Your task to perform on an android device: Open ESPN.com Image 0: 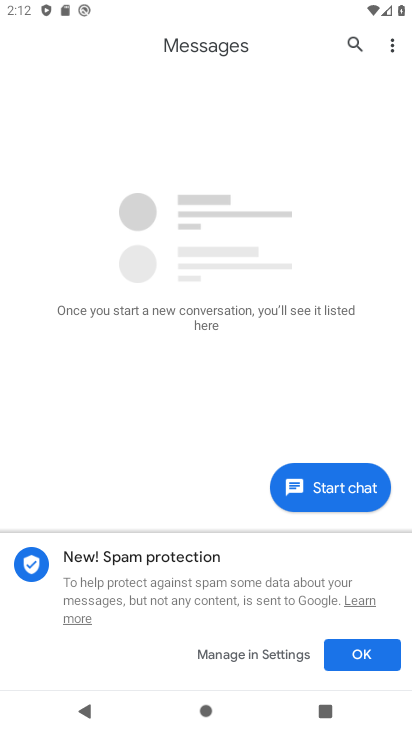
Step 0: drag from (230, 533) to (176, 76)
Your task to perform on an android device: Open ESPN.com Image 1: 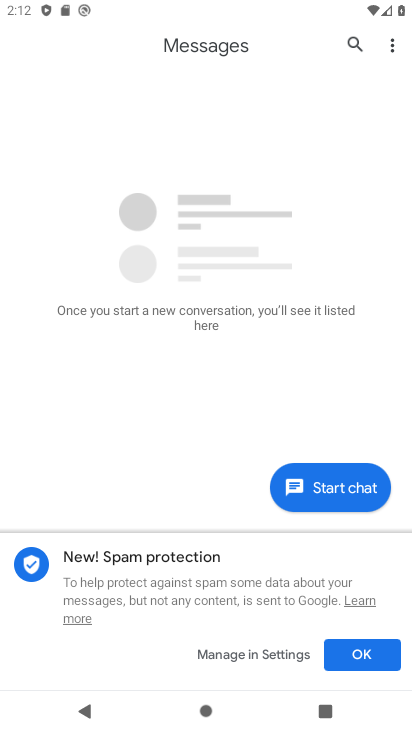
Step 1: press back button
Your task to perform on an android device: Open ESPN.com Image 2: 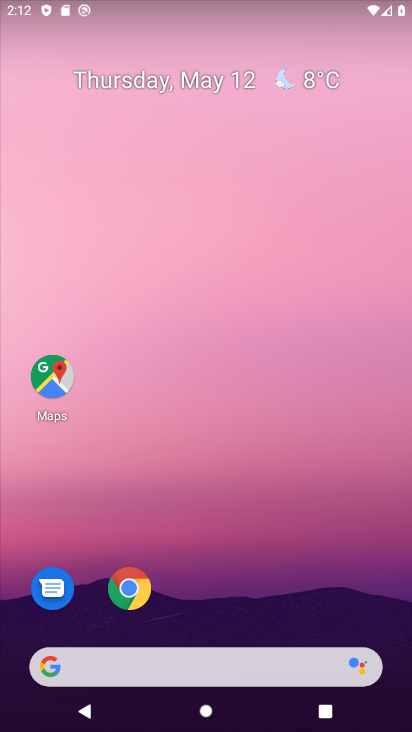
Step 2: drag from (252, 527) to (194, 51)
Your task to perform on an android device: Open ESPN.com Image 3: 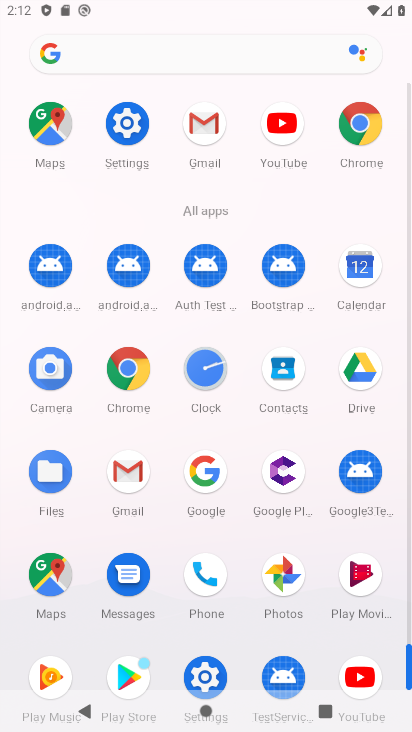
Step 3: click (125, 364)
Your task to perform on an android device: Open ESPN.com Image 4: 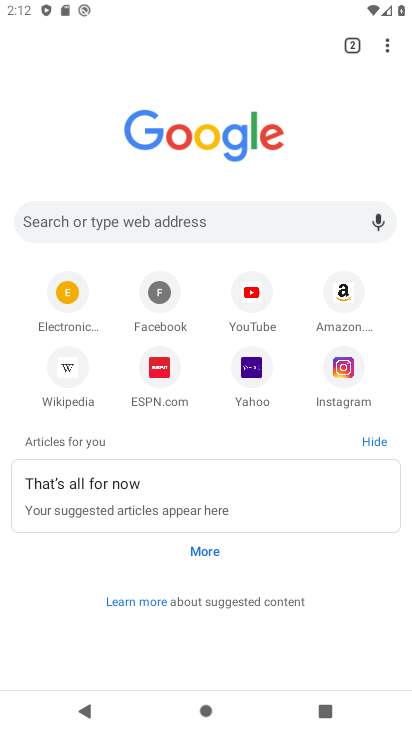
Step 4: click (152, 222)
Your task to perform on an android device: Open ESPN.com Image 5: 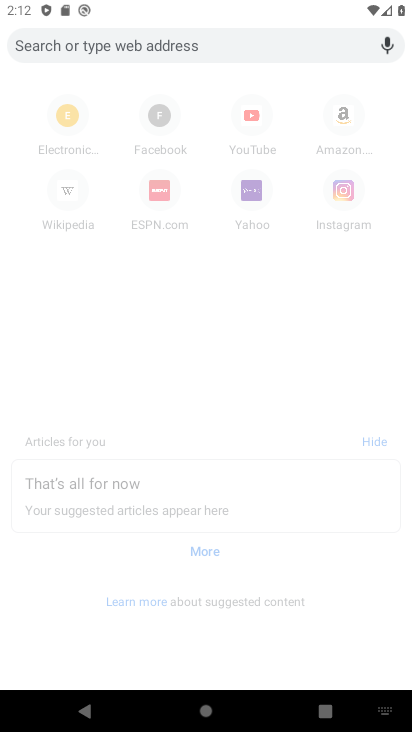
Step 5: click (148, 184)
Your task to perform on an android device: Open ESPN.com Image 6: 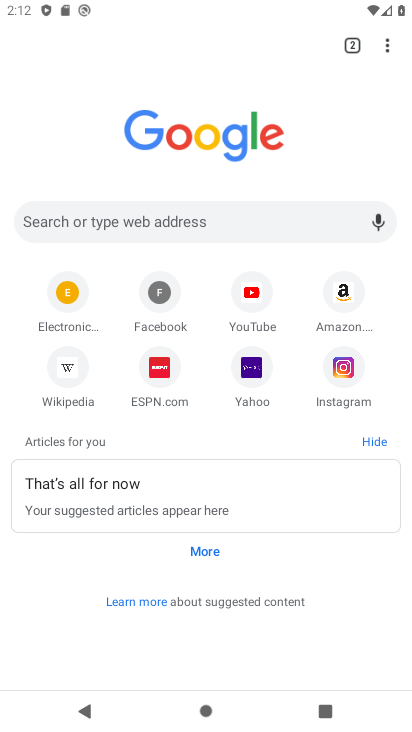
Step 6: click (166, 366)
Your task to perform on an android device: Open ESPN.com Image 7: 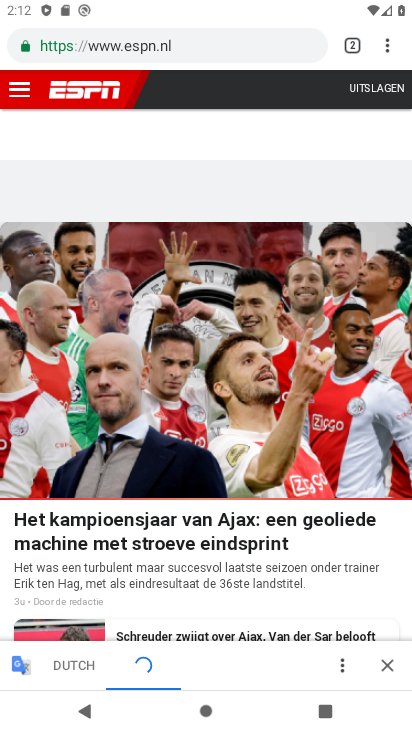
Step 7: drag from (184, 505) to (210, 178)
Your task to perform on an android device: Open ESPN.com Image 8: 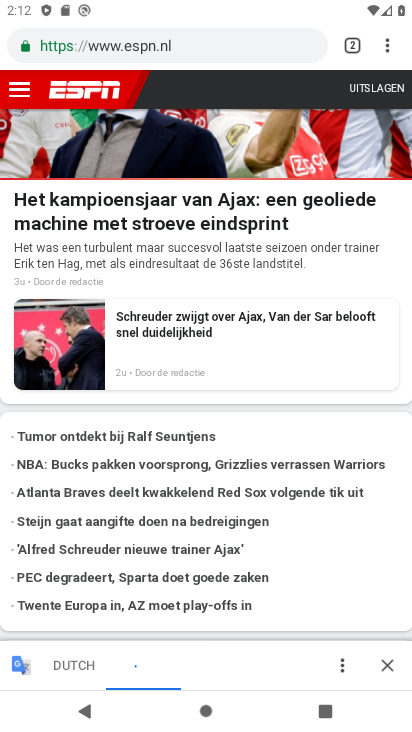
Step 8: drag from (232, 528) to (261, 162)
Your task to perform on an android device: Open ESPN.com Image 9: 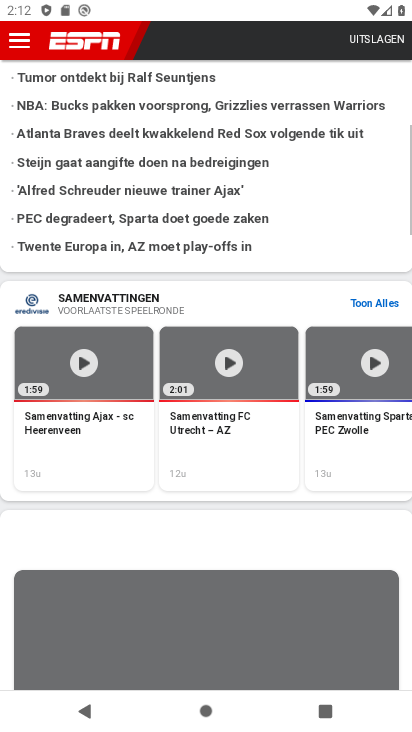
Step 9: drag from (220, 471) to (245, 134)
Your task to perform on an android device: Open ESPN.com Image 10: 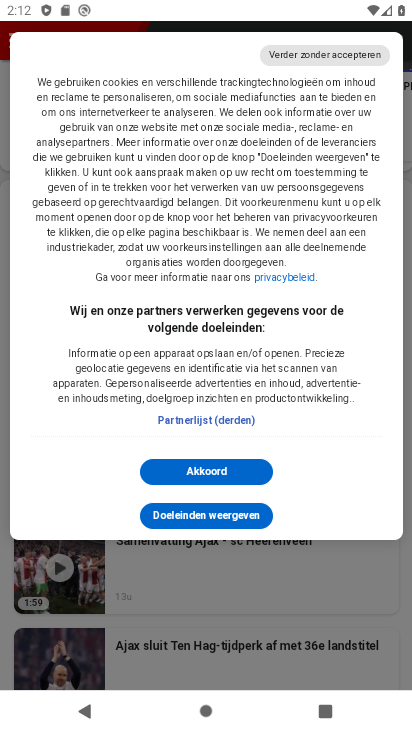
Step 10: click (204, 472)
Your task to perform on an android device: Open ESPN.com Image 11: 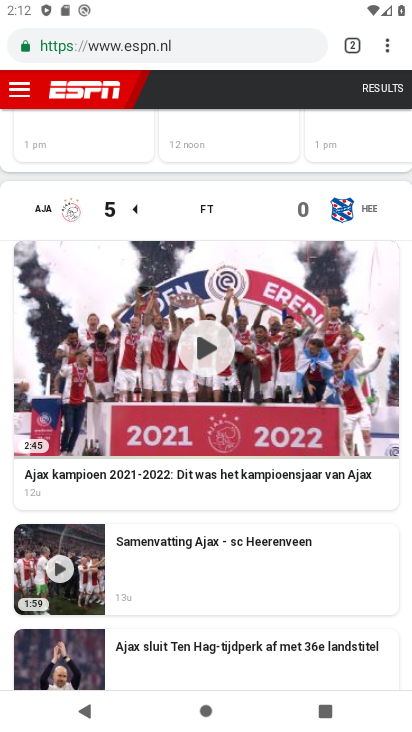
Step 11: task complete